Your task to perform on an android device: visit the assistant section in the google photos Image 0: 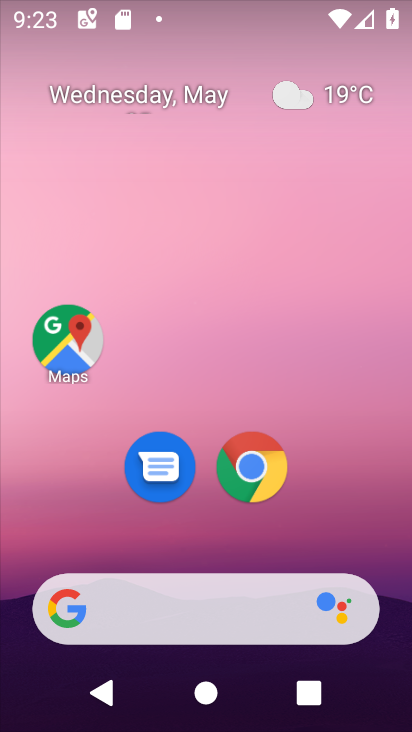
Step 0: drag from (338, 459) to (382, 146)
Your task to perform on an android device: visit the assistant section in the google photos Image 1: 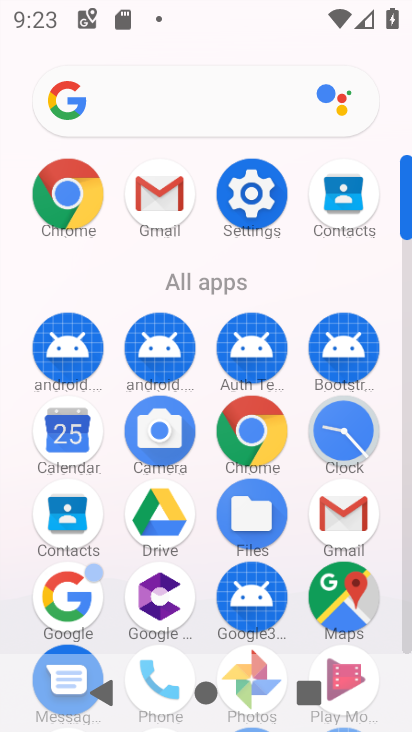
Step 1: click (244, 666)
Your task to perform on an android device: visit the assistant section in the google photos Image 2: 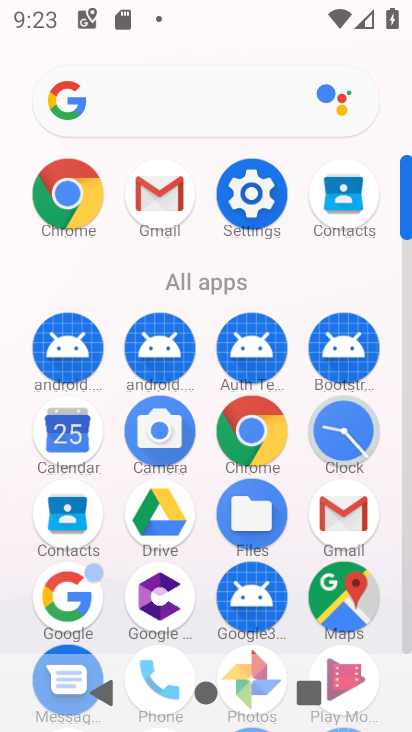
Step 2: click (253, 657)
Your task to perform on an android device: visit the assistant section in the google photos Image 3: 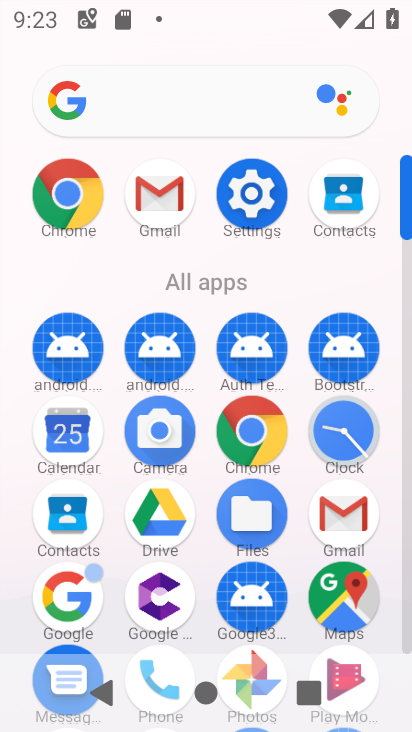
Step 3: drag from (284, 639) to (341, 431)
Your task to perform on an android device: visit the assistant section in the google photos Image 4: 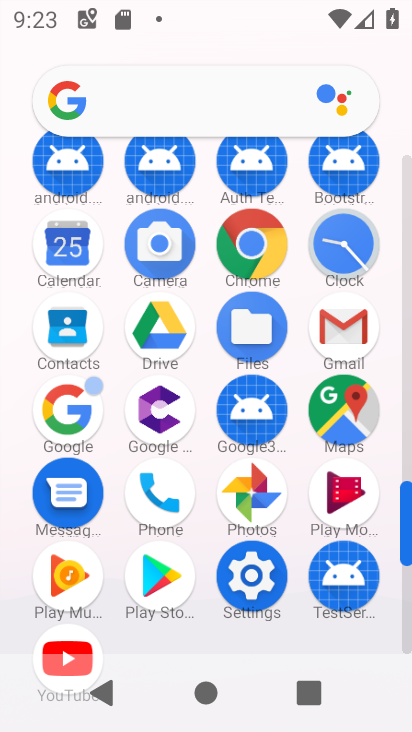
Step 4: click (258, 501)
Your task to perform on an android device: visit the assistant section in the google photos Image 5: 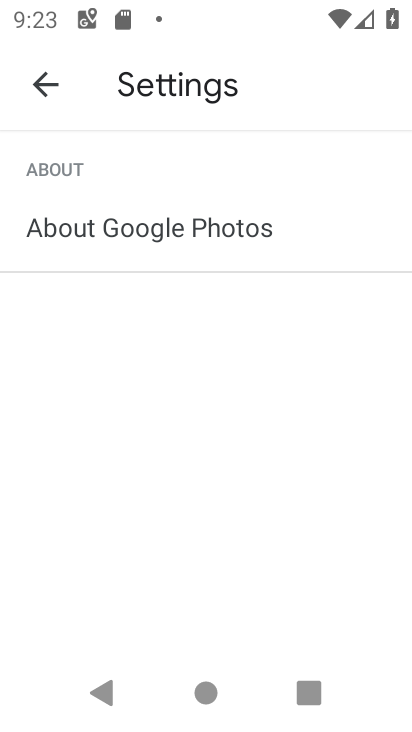
Step 5: click (68, 104)
Your task to perform on an android device: visit the assistant section in the google photos Image 6: 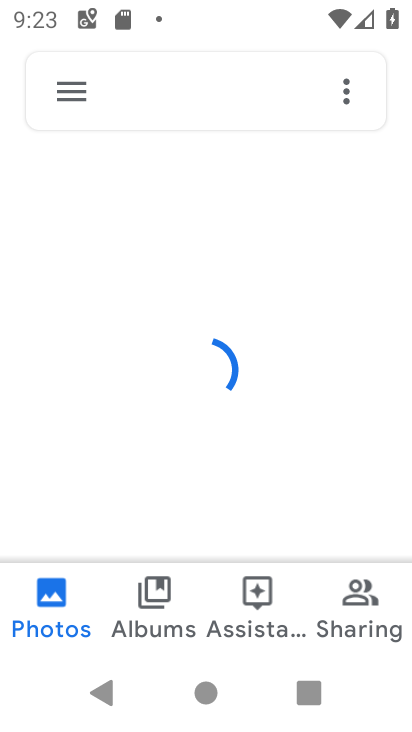
Step 6: click (232, 607)
Your task to perform on an android device: visit the assistant section in the google photos Image 7: 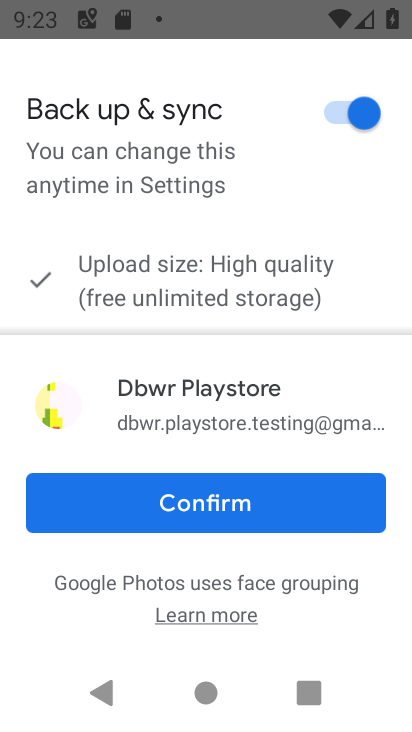
Step 7: click (284, 508)
Your task to perform on an android device: visit the assistant section in the google photos Image 8: 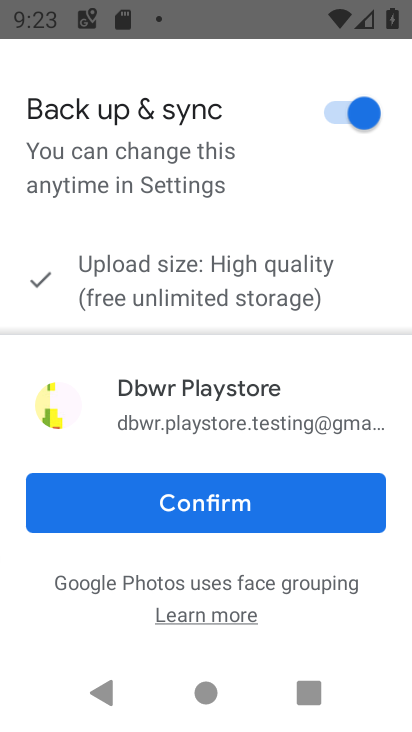
Step 8: click (284, 508)
Your task to perform on an android device: visit the assistant section in the google photos Image 9: 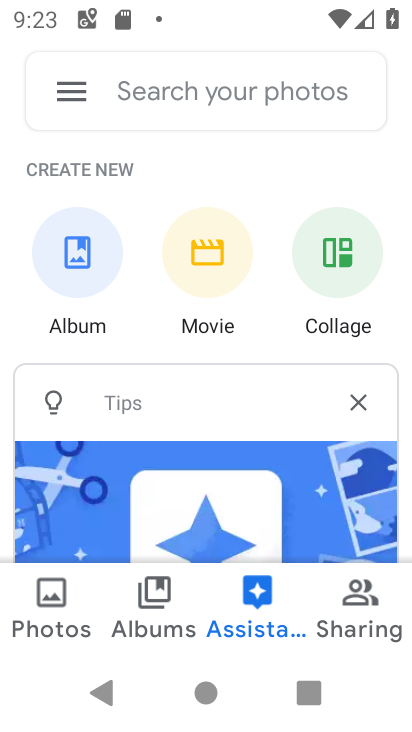
Step 9: task complete